Your task to perform on an android device: Go to CNN.com Image 0: 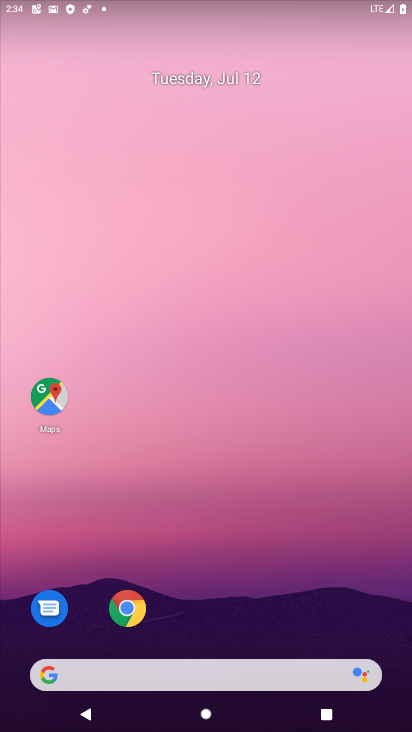
Step 0: click (124, 625)
Your task to perform on an android device: Go to CNN.com Image 1: 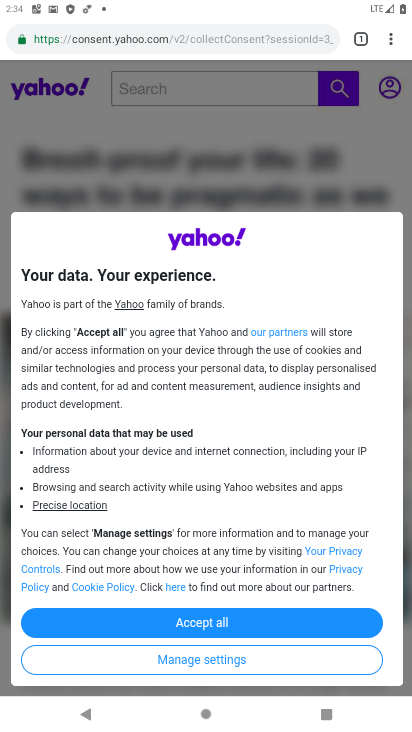
Step 1: press back button
Your task to perform on an android device: Go to CNN.com Image 2: 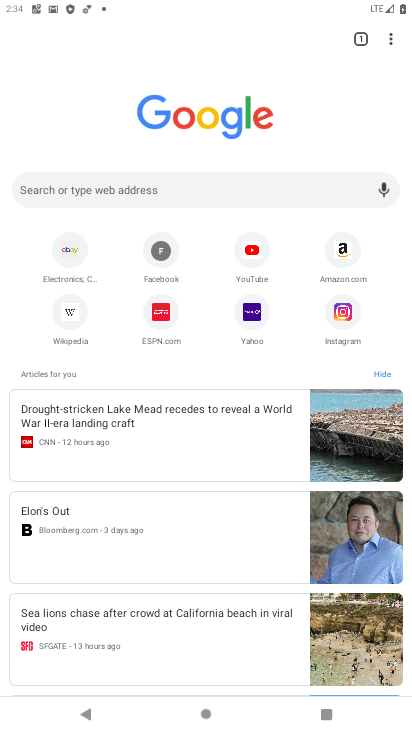
Step 2: click (142, 178)
Your task to perform on an android device: Go to CNN.com Image 3: 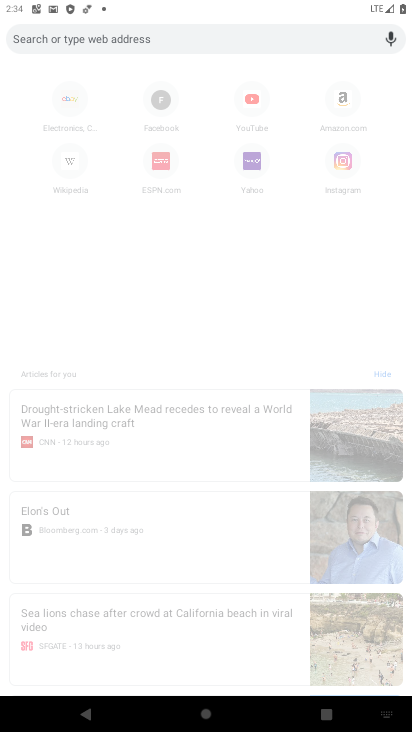
Step 3: type "www.cnn.com"
Your task to perform on an android device: Go to CNN.com Image 4: 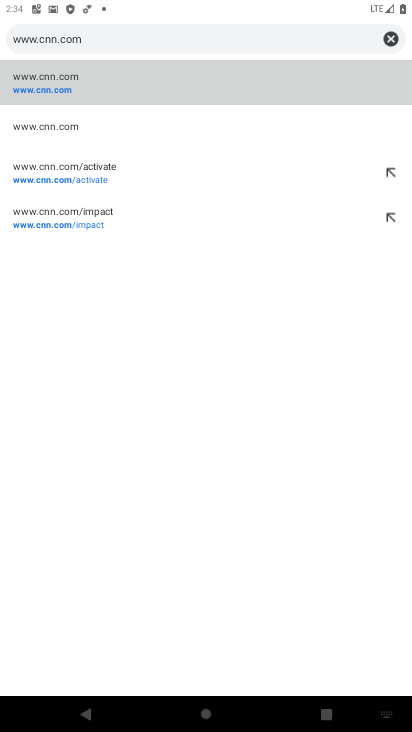
Step 4: click (61, 77)
Your task to perform on an android device: Go to CNN.com Image 5: 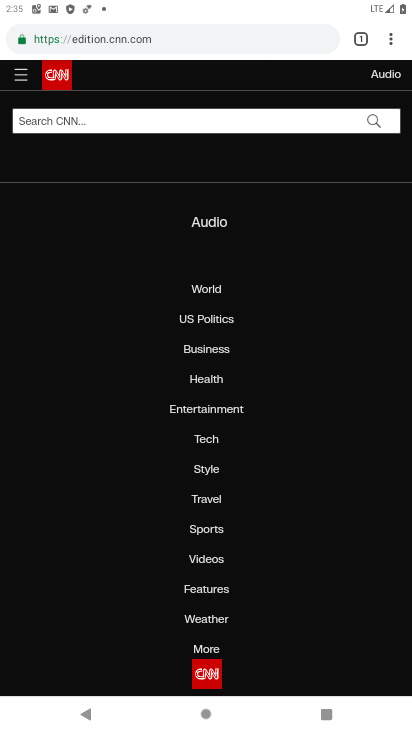
Step 5: task complete